Your task to perform on an android device: check data usage Image 0: 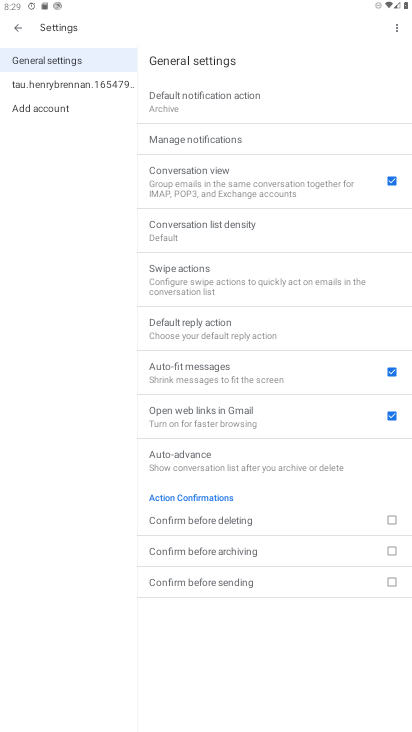
Step 0: press home button
Your task to perform on an android device: check data usage Image 1: 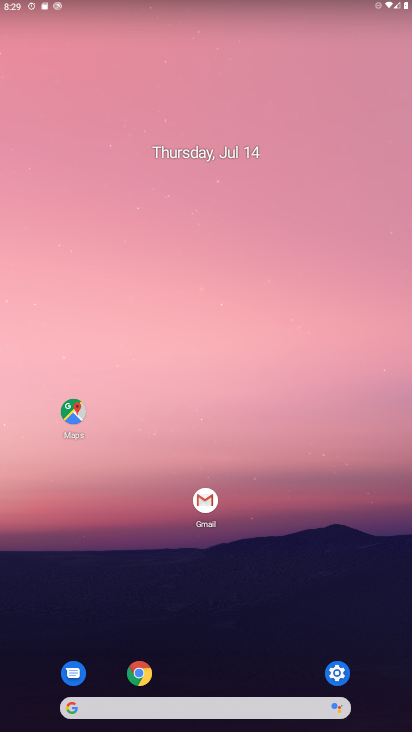
Step 1: click (346, 665)
Your task to perform on an android device: check data usage Image 2: 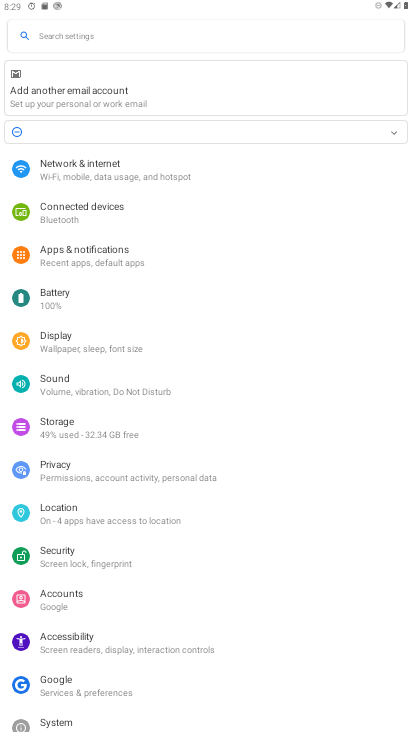
Step 2: click (106, 36)
Your task to perform on an android device: check data usage Image 3: 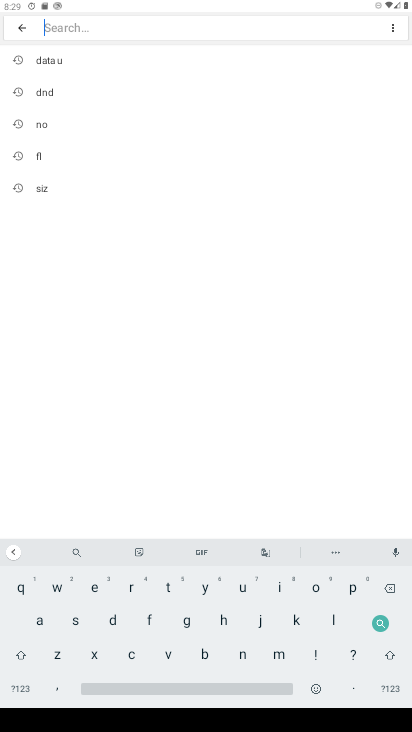
Step 3: click (49, 58)
Your task to perform on an android device: check data usage Image 4: 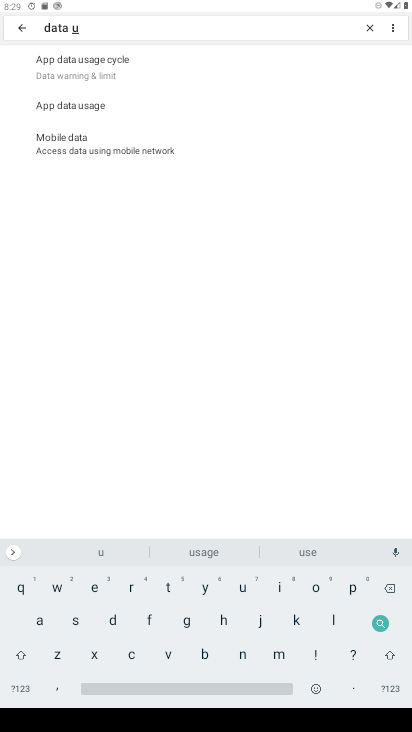
Step 4: click (84, 104)
Your task to perform on an android device: check data usage Image 5: 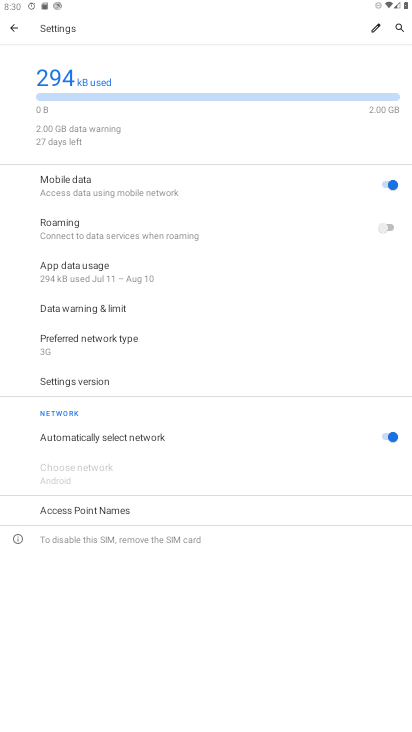
Step 5: task complete